Your task to perform on an android device: Search for vegetarian restaurants on Maps Image 0: 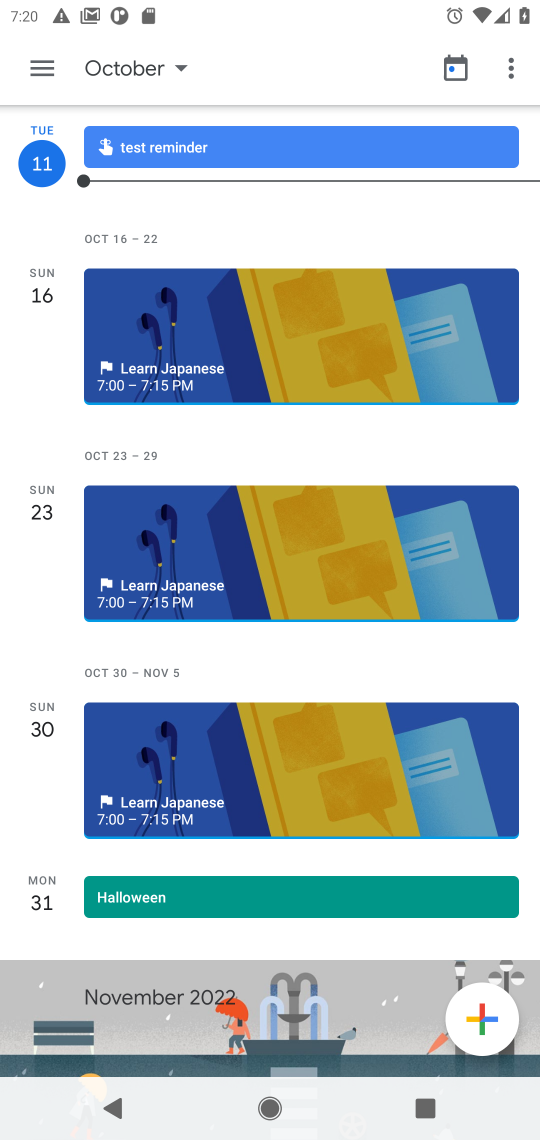
Step 0: press home button
Your task to perform on an android device: Search for vegetarian restaurants on Maps Image 1: 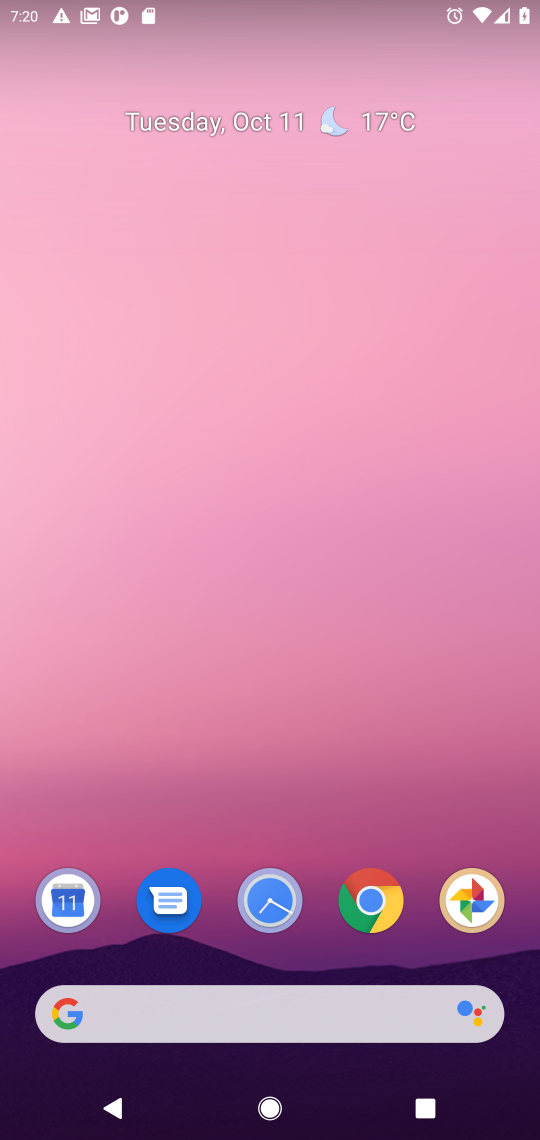
Step 1: click (370, 900)
Your task to perform on an android device: Search for vegetarian restaurants on Maps Image 2: 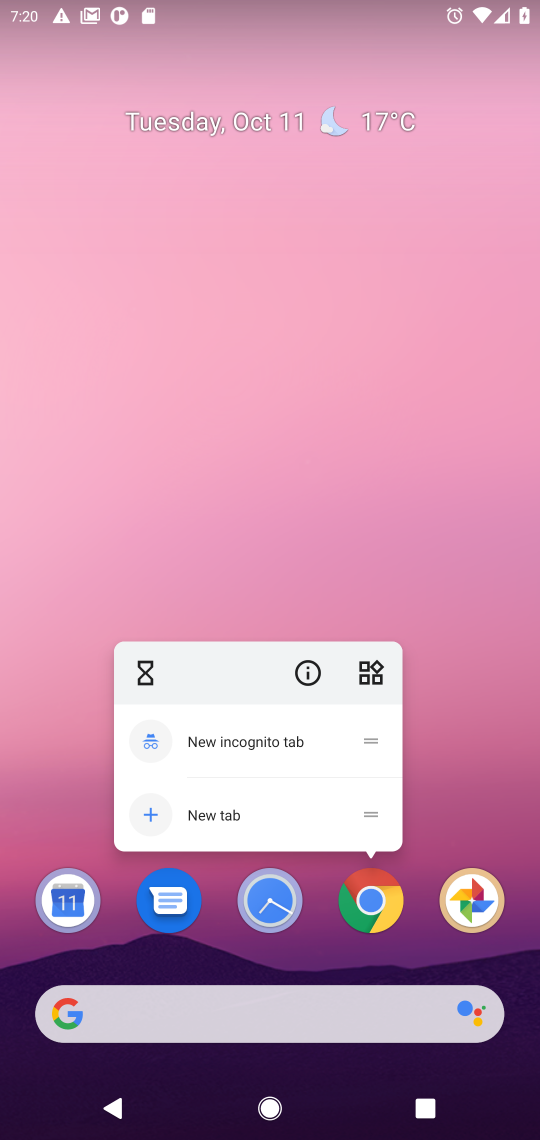
Step 2: click (370, 902)
Your task to perform on an android device: Search for vegetarian restaurants on Maps Image 3: 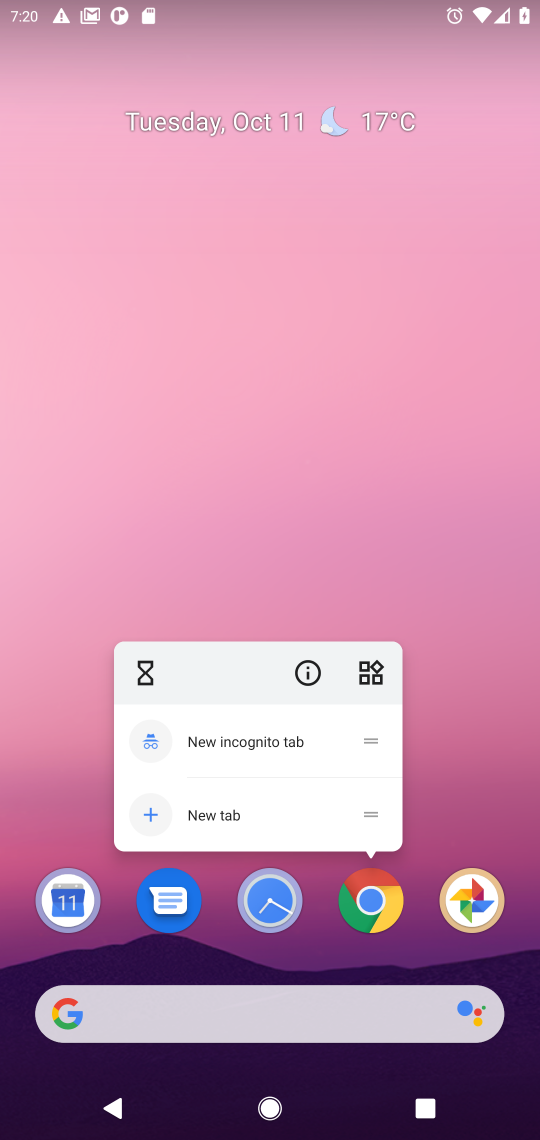
Step 3: click (370, 911)
Your task to perform on an android device: Search for vegetarian restaurants on Maps Image 4: 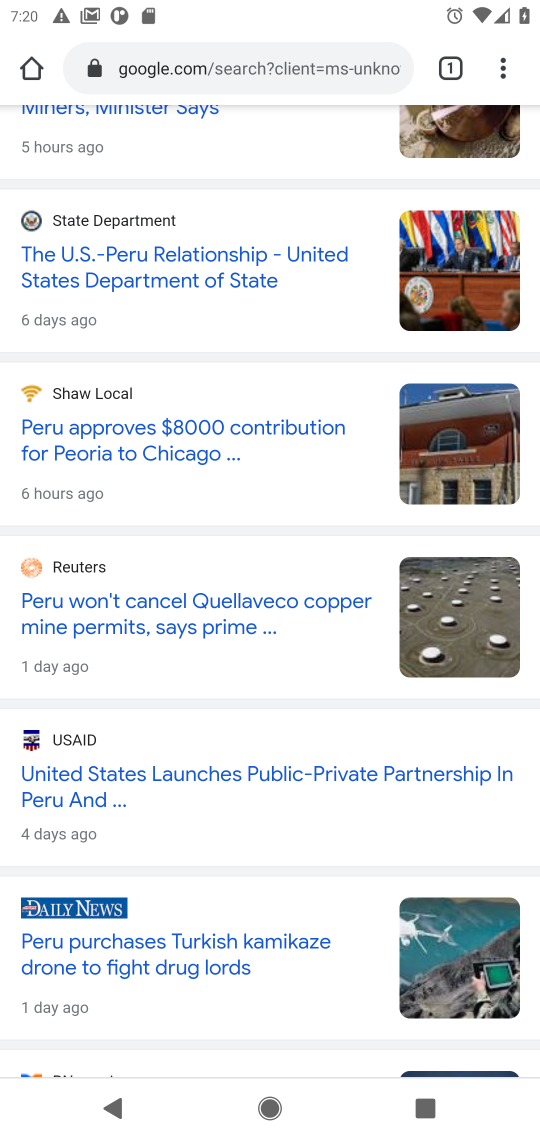
Step 4: click (218, 64)
Your task to perform on an android device: Search for vegetarian restaurants on Maps Image 5: 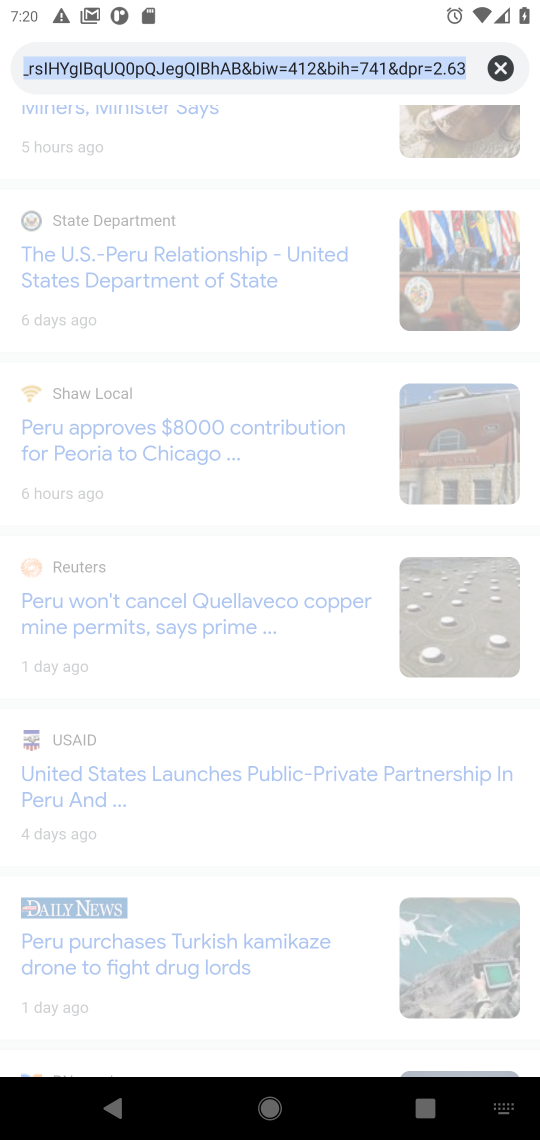
Step 5: click (501, 60)
Your task to perform on an android device: Search for vegetarian restaurants on Maps Image 6: 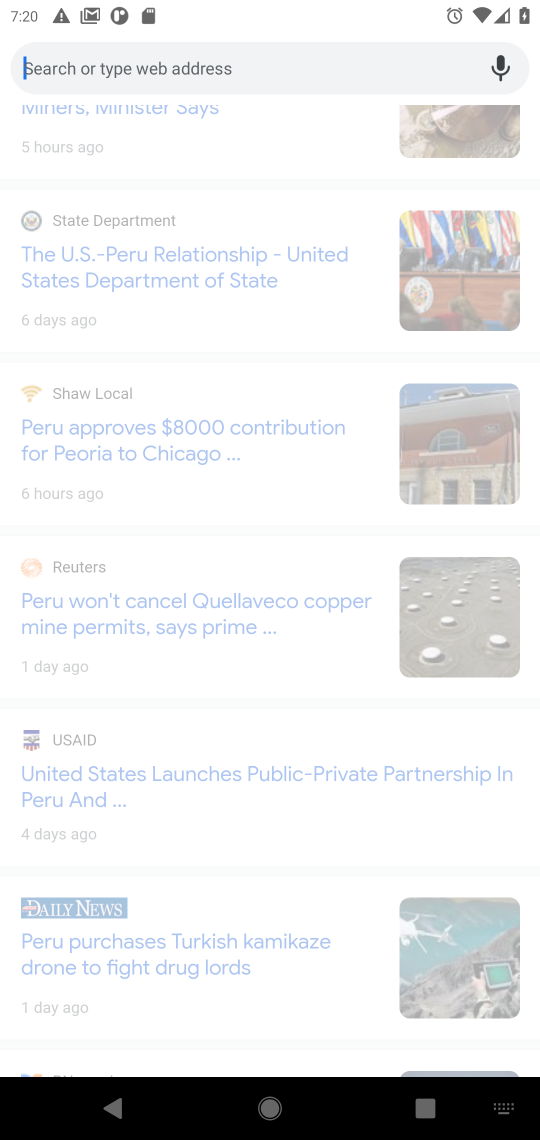
Step 6: press home button
Your task to perform on an android device: Search for vegetarian restaurants on Maps Image 7: 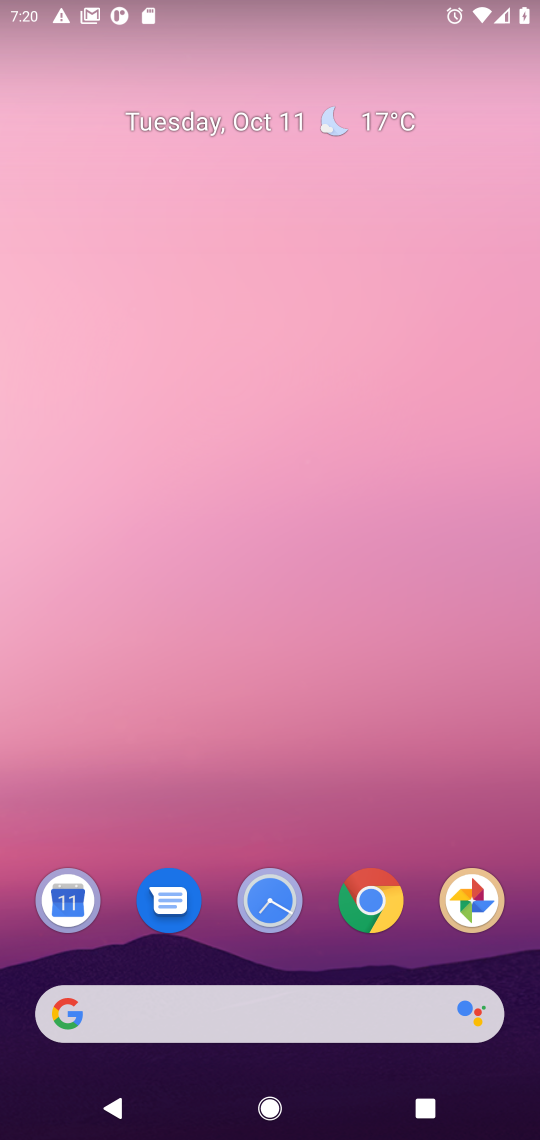
Step 7: drag from (308, 1009) to (339, 103)
Your task to perform on an android device: Search for vegetarian restaurants on Maps Image 8: 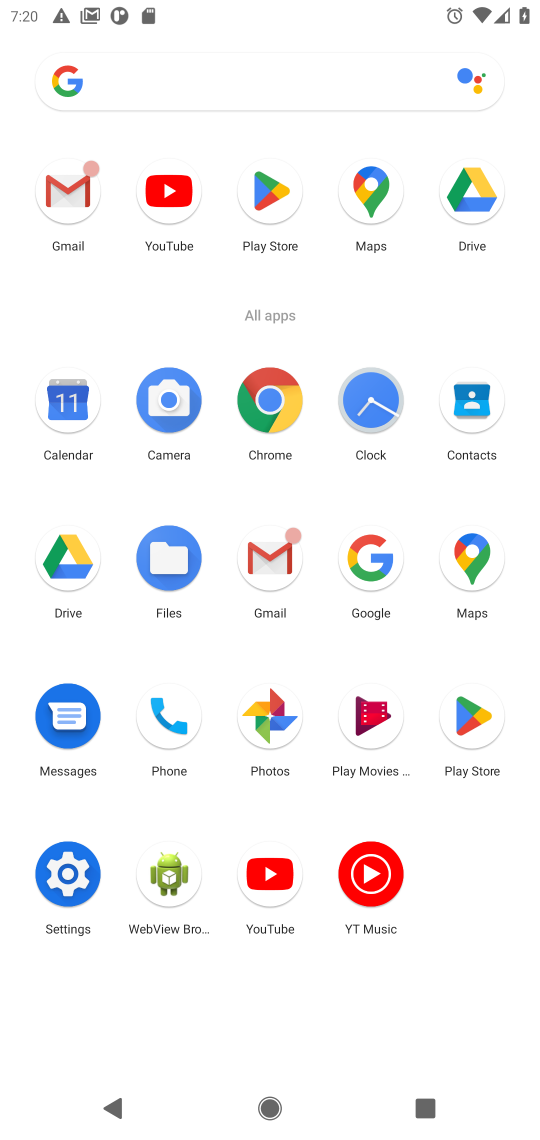
Step 8: click (476, 561)
Your task to perform on an android device: Search for vegetarian restaurants on Maps Image 9: 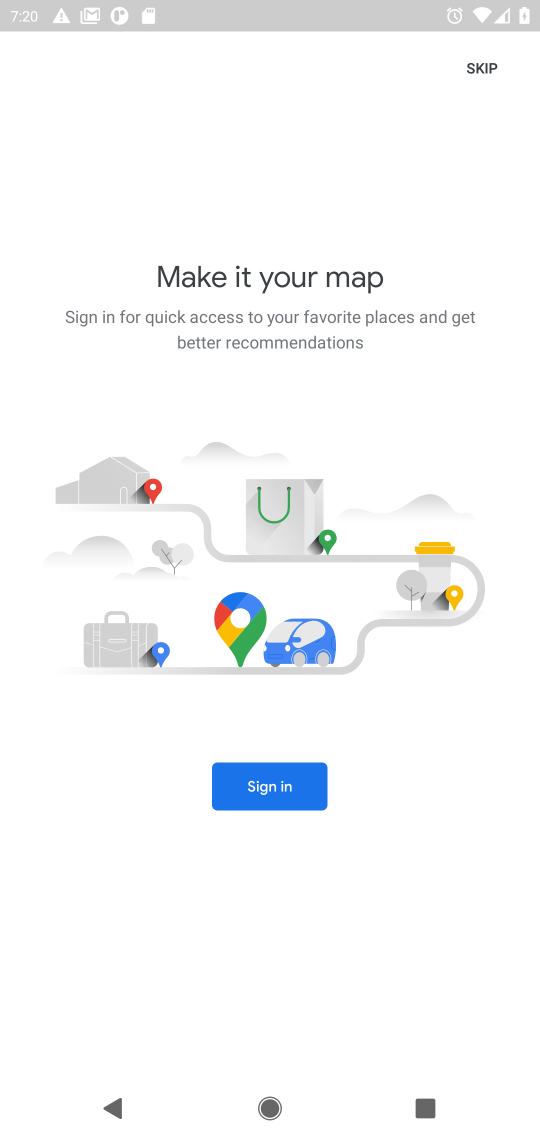
Step 9: click (462, 68)
Your task to perform on an android device: Search for vegetarian restaurants on Maps Image 10: 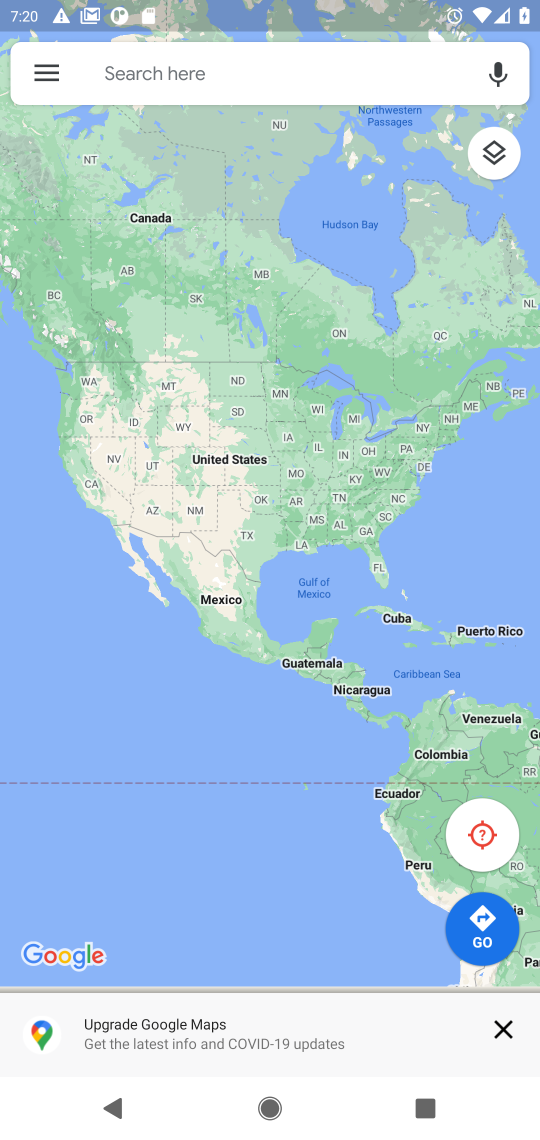
Step 10: click (177, 77)
Your task to perform on an android device: Search for vegetarian restaurants on Maps Image 11: 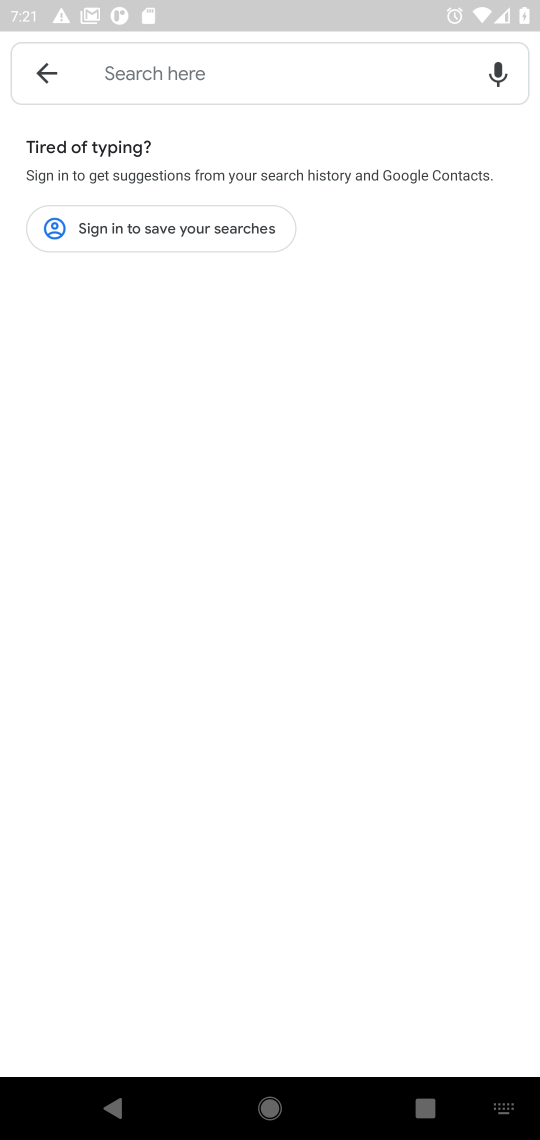
Step 11: type "vegetarian restaurants"
Your task to perform on an android device: Search for vegetarian restaurants on Maps Image 12: 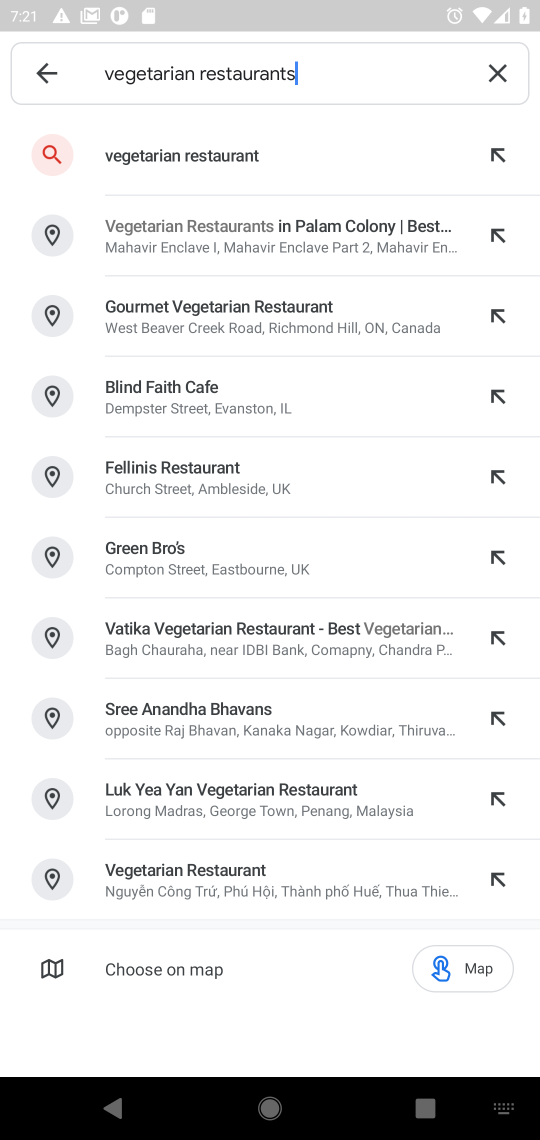
Step 12: press enter
Your task to perform on an android device: Search for vegetarian restaurants on Maps Image 13: 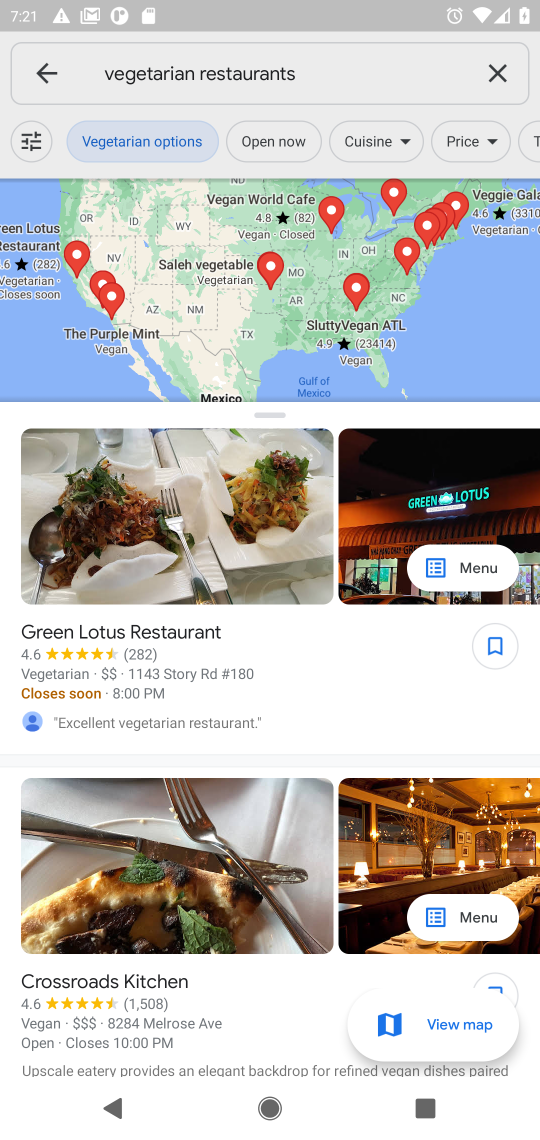
Step 13: task complete